Your task to perform on an android device: Nike Air Max 2020 shoes on Nike.com Image 0: 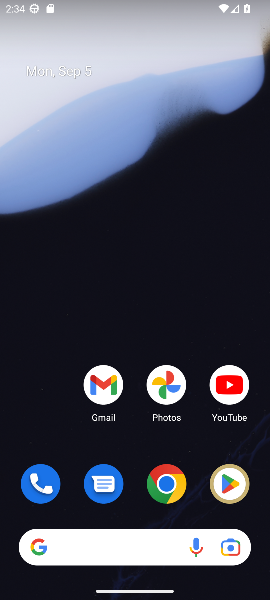
Step 0: click (168, 484)
Your task to perform on an android device: Nike Air Max 2020 shoes on Nike.com Image 1: 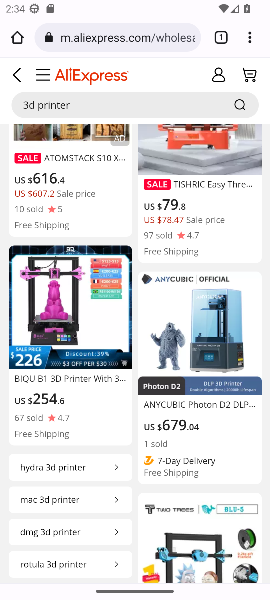
Step 1: click (158, 34)
Your task to perform on an android device: Nike Air Max 2020 shoes on Nike.com Image 2: 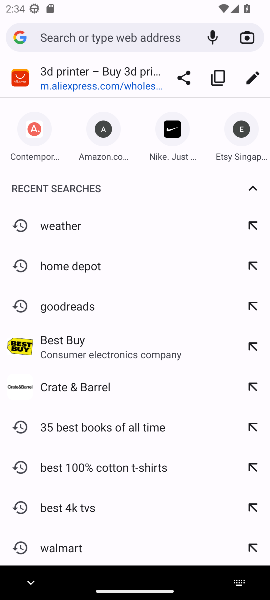
Step 2: type "Nike.com"
Your task to perform on an android device: Nike Air Max 2020 shoes on Nike.com Image 3: 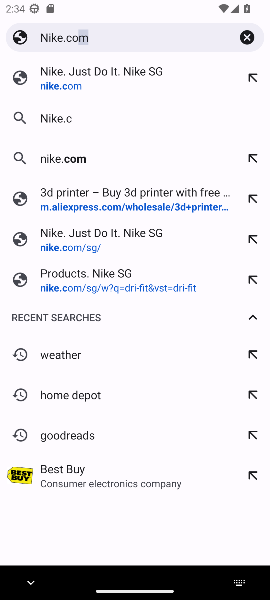
Step 3: press enter
Your task to perform on an android device: Nike Air Max 2020 shoes on Nike.com Image 4: 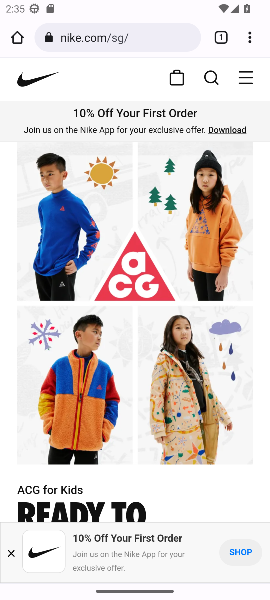
Step 4: click (195, 71)
Your task to perform on an android device: Nike Air Max 2020 shoes on Nike.com Image 5: 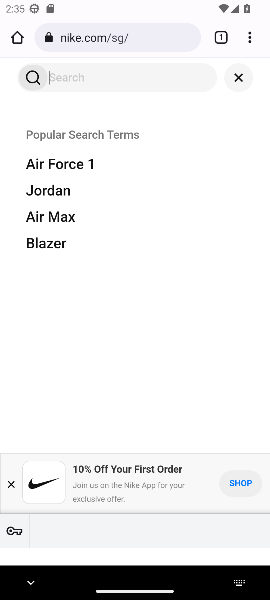
Step 5: click (96, 67)
Your task to perform on an android device: Nike Air Max 2020 shoes on Nike.com Image 6: 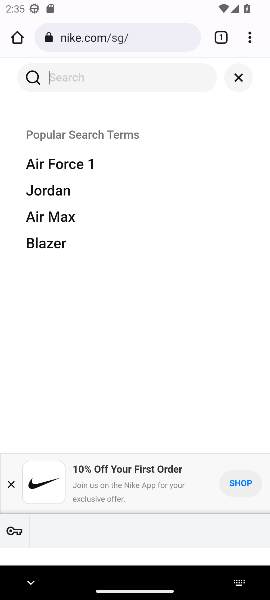
Step 6: type " Air Max 2020 shoes "
Your task to perform on an android device: Nike Air Max 2020 shoes on Nike.com Image 7: 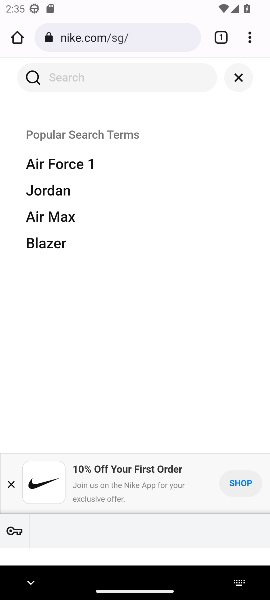
Step 7: press enter
Your task to perform on an android device: Nike Air Max 2020 shoes on Nike.com Image 8: 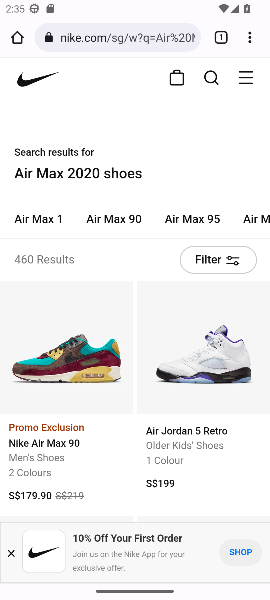
Step 8: task complete